Your task to perform on an android device: Do I have any events today? Image 0: 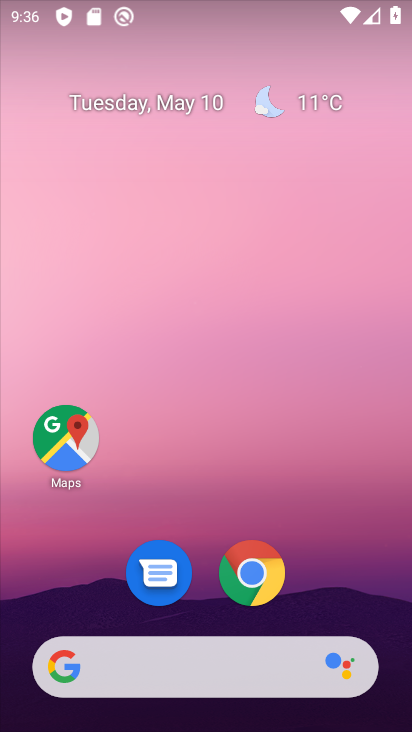
Step 0: drag from (318, 579) to (344, 135)
Your task to perform on an android device: Do I have any events today? Image 1: 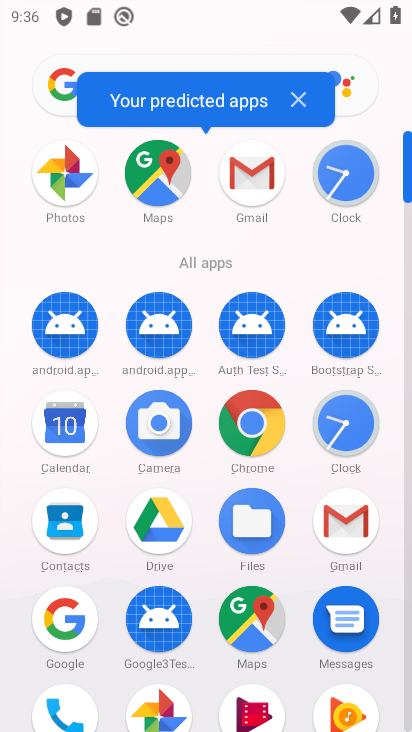
Step 1: click (69, 417)
Your task to perform on an android device: Do I have any events today? Image 2: 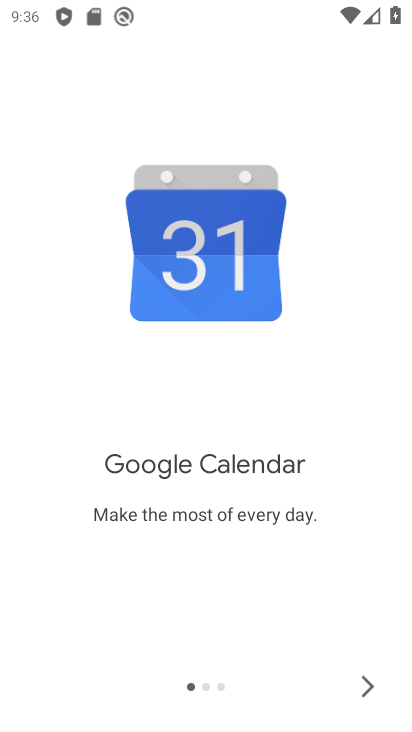
Step 2: click (365, 680)
Your task to perform on an android device: Do I have any events today? Image 3: 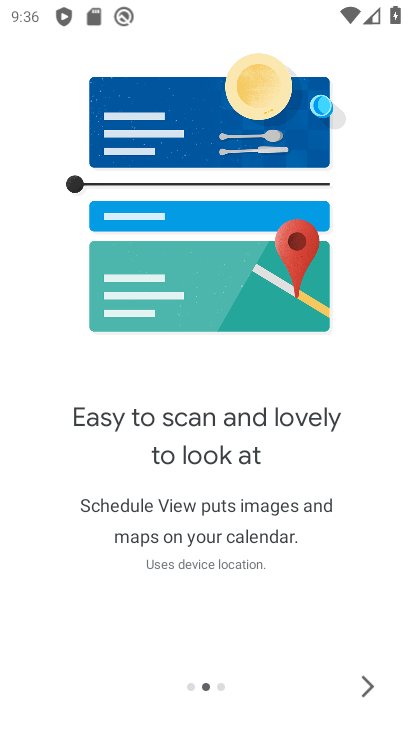
Step 3: click (365, 680)
Your task to perform on an android device: Do I have any events today? Image 4: 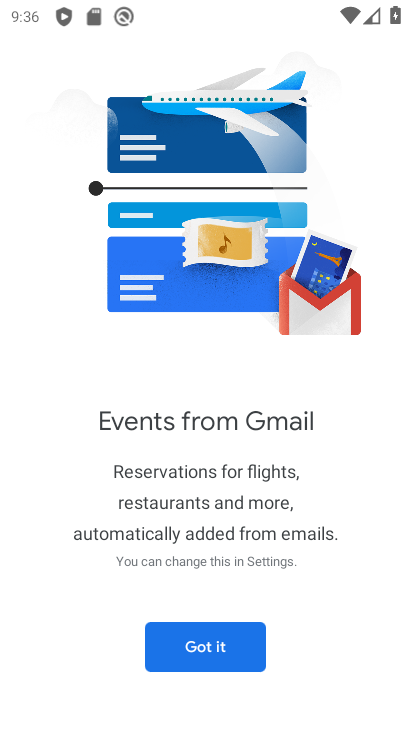
Step 4: click (229, 647)
Your task to perform on an android device: Do I have any events today? Image 5: 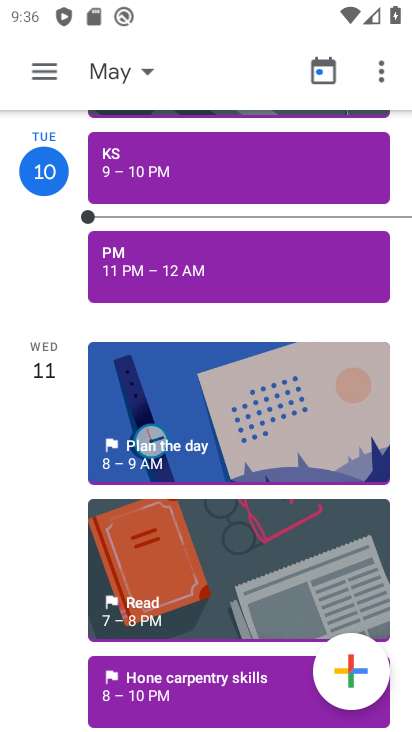
Step 5: click (108, 67)
Your task to perform on an android device: Do I have any events today? Image 6: 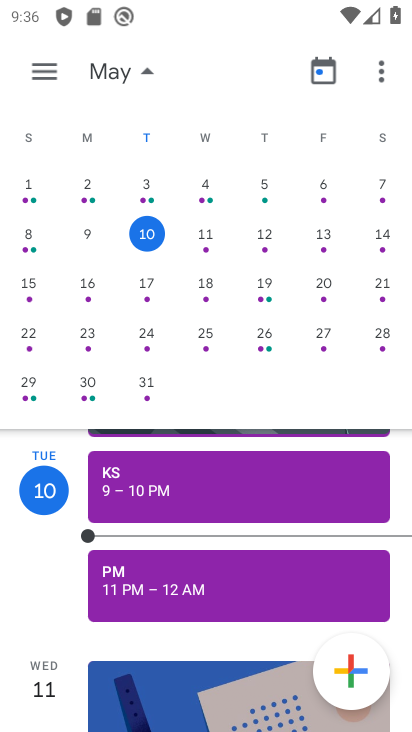
Step 6: click (204, 231)
Your task to perform on an android device: Do I have any events today? Image 7: 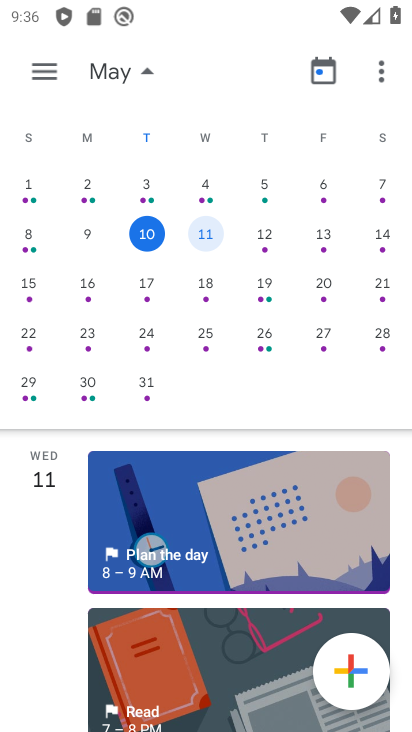
Step 7: task complete